Your task to perform on an android device: turn notification dots on Image 0: 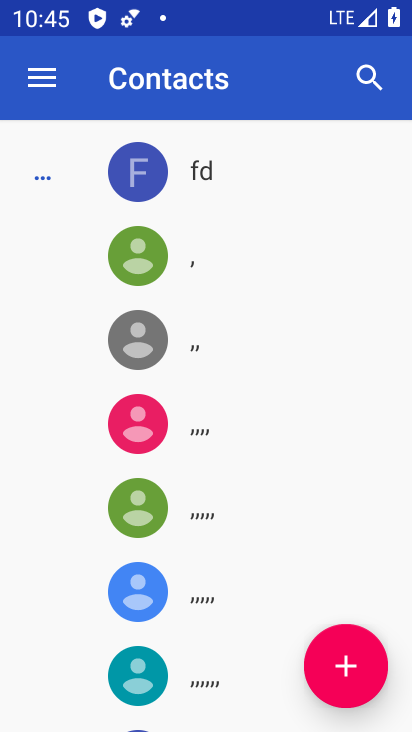
Step 0: press home button
Your task to perform on an android device: turn notification dots on Image 1: 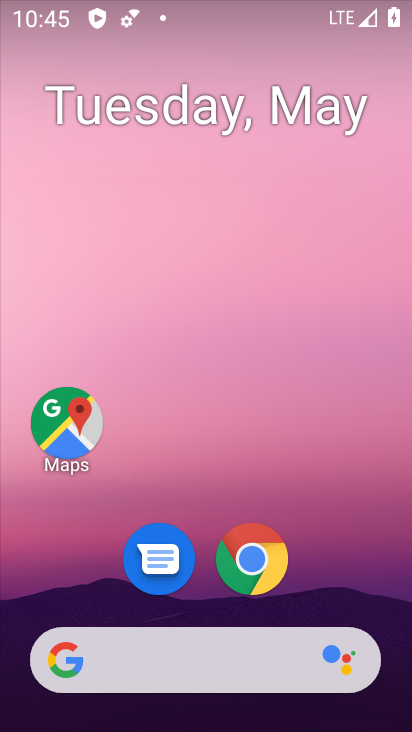
Step 1: drag from (321, 580) to (334, 147)
Your task to perform on an android device: turn notification dots on Image 2: 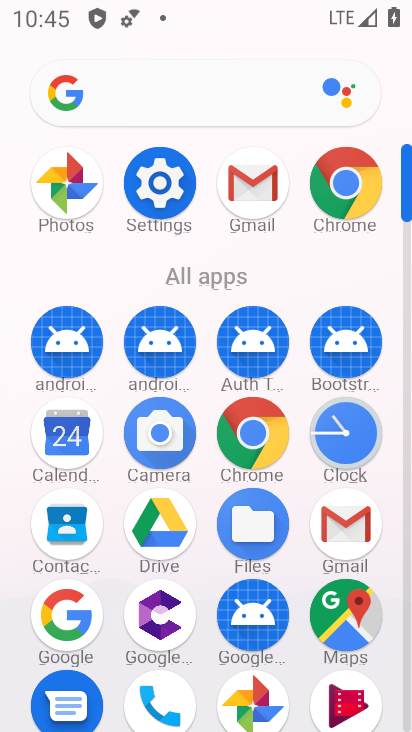
Step 2: click (172, 170)
Your task to perform on an android device: turn notification dots on Image 3: 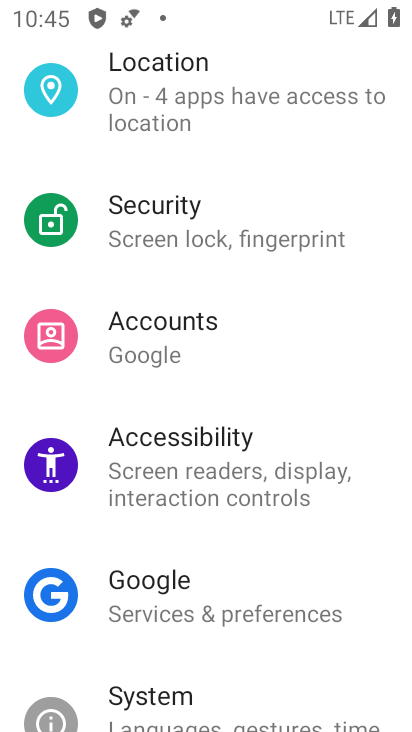
Step 3: drag from (267, 179) to (250, 492)
Your task to perform on an android device: turn notification dots on Image 4: 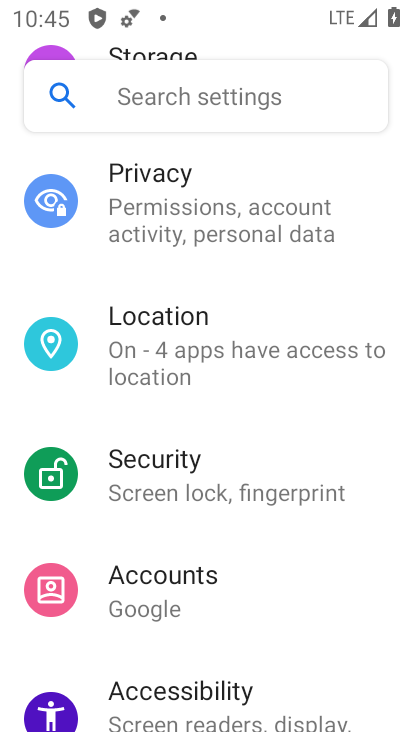
Step 4: drag from (251, 190) to (266, 559)
Your task to perform on an android device: turn notification dots on Image 5: 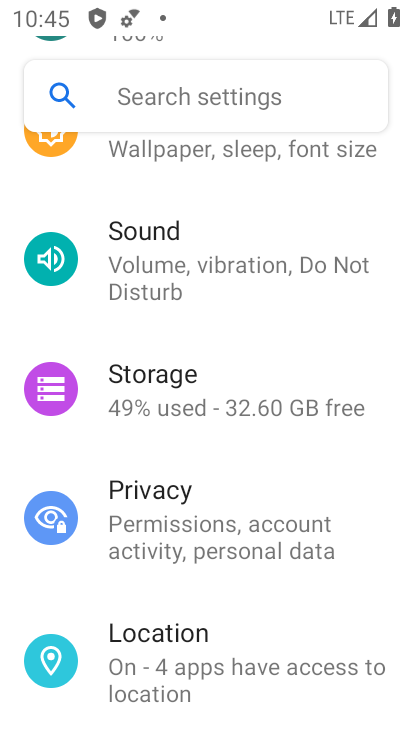
Step 5: drag from (238, 160) to (274, 614)
Your task to perform on an android device: turn notification dots on Image 6: 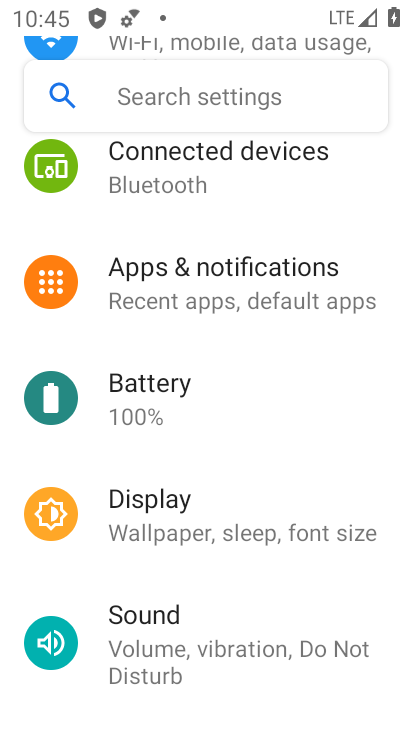
Step 6: click (241, 288)
Your task to perform on an android device: turn notification dots on Image 7: 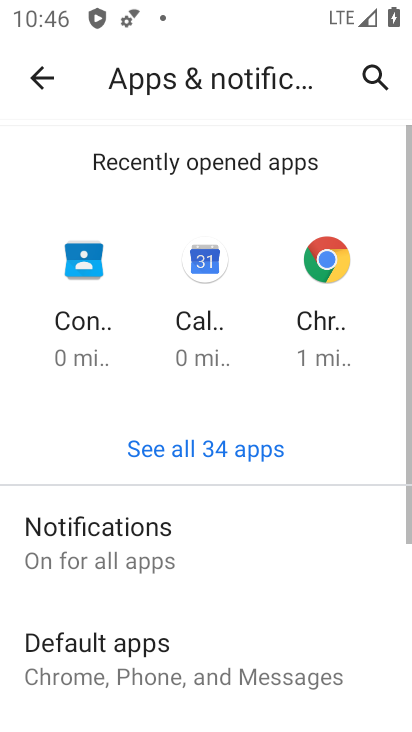
Step 7: click (126, 554)
Your task to perform on an android device: turn notification dots on Image 8: 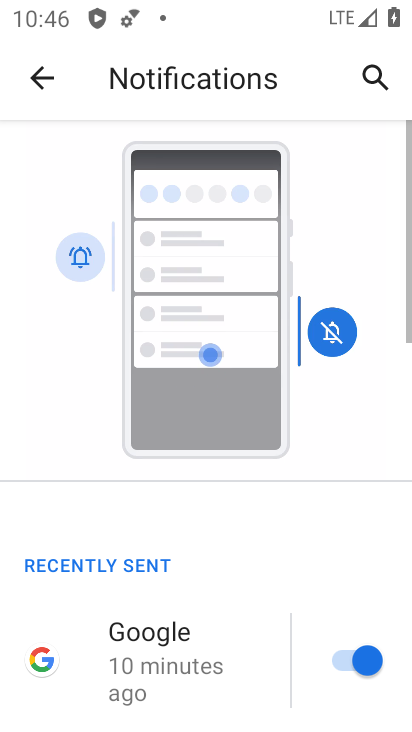
Step 8: drag from (241, 338) to (241, 180)
Your task to perform on an android device: turn notification dots on Image 9: 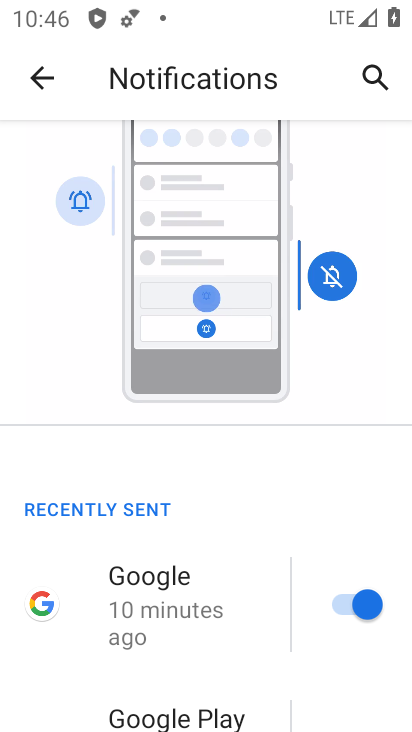
Step 9: drag from (237, 666) to (222, 242)
Your task to perform on an android device: turn notification dots on Image 10: 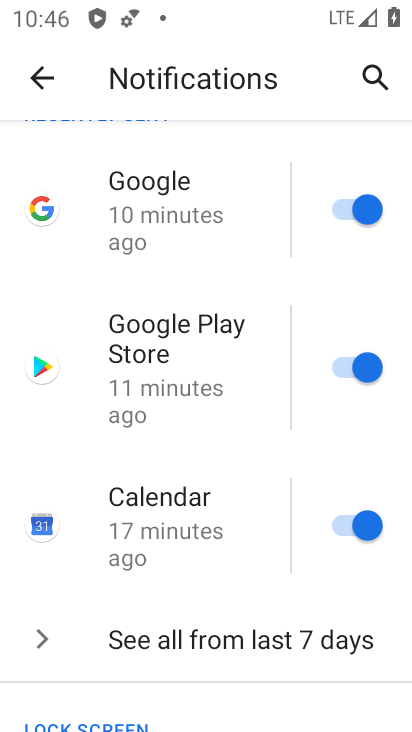
Step 10: drag from (191, 680) to (213, 255)
Your task to perform on an android device: turn notification dots on Image 11: 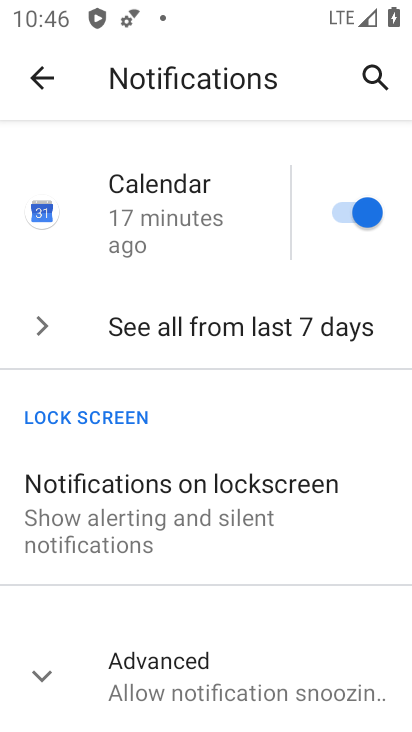
Step 11: click (189, 689)
Your task to perform on an android device: turn notification dots on Image 12: 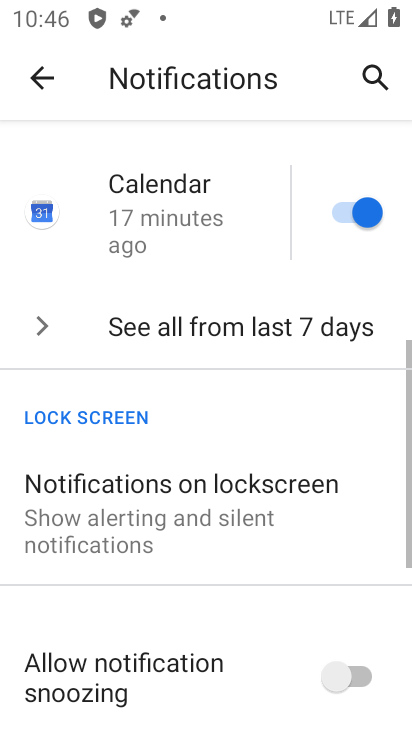
Step 12: task complete